Your task to perform on an android device: change timer sound Image 0: 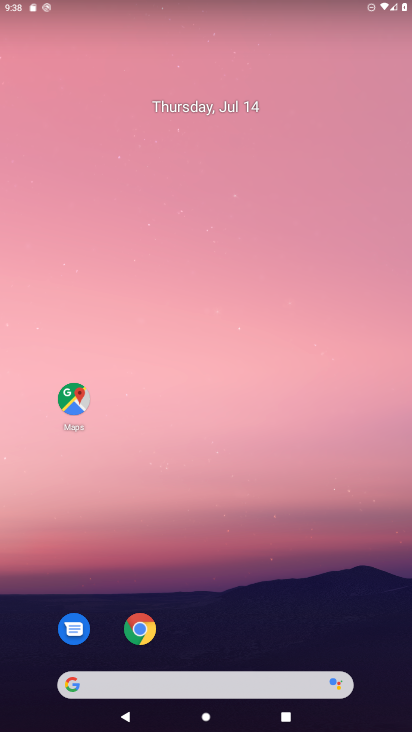
Step 0: drag from (227, 605) to (212, 66)
Your task to perform on an android device: change timer sound Image 1: 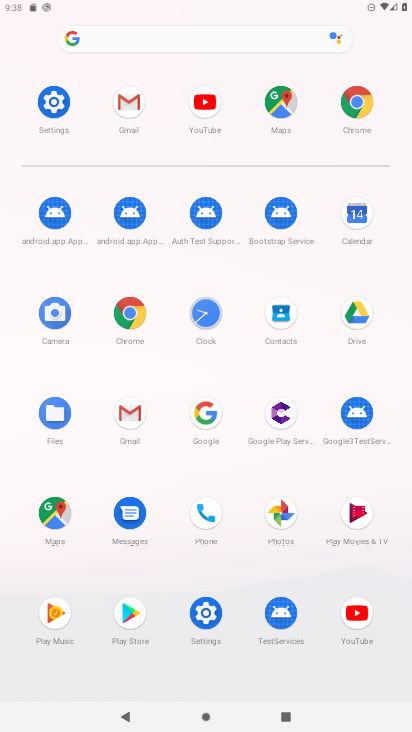
Step 1: click (202, 611)
Your task to perform on an android device: change timer sound Image 2: 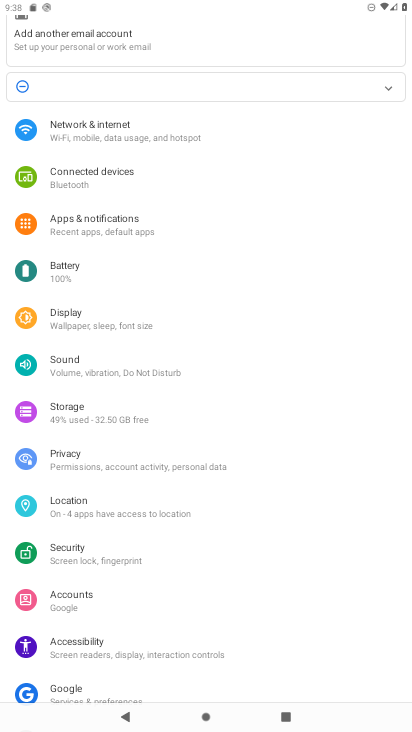
Step 2: click (47, 363)
Your task to perform on an android device: change timer sound Image 3: 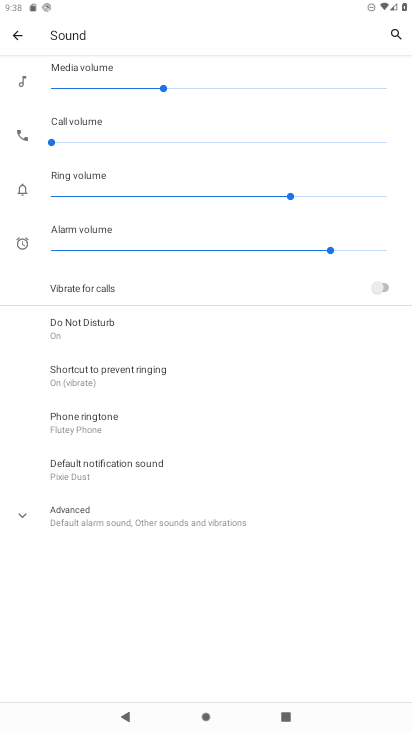
Step 3: task complete